Your task to perform on an android device: change notifications settings Image 0: 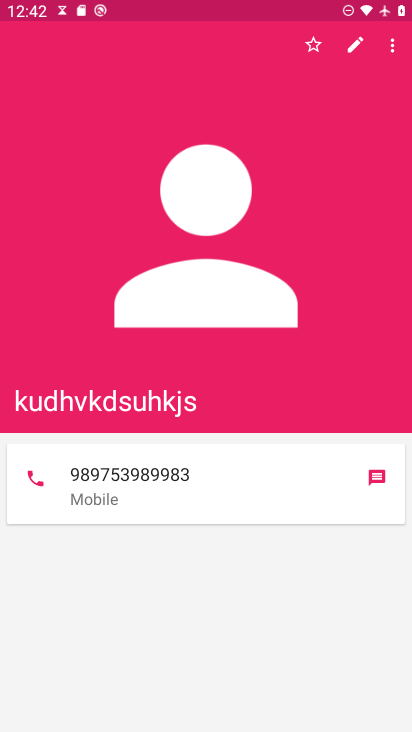
Step 0: press back button
Your task to perform on an android device: change notifications settings Image 1: 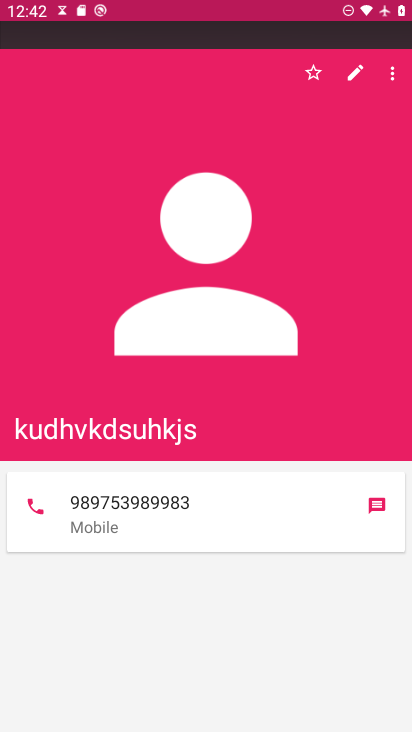
Step 1: press back button
Your task to perform on an android device: change notifications settings Image 2: 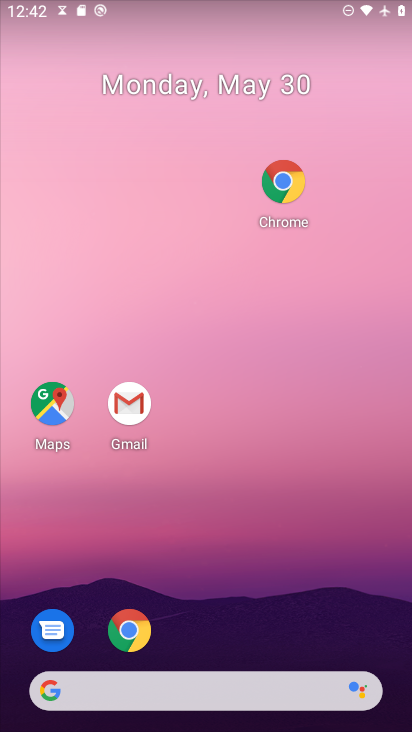
Step 2: click (243, 203)
Your task to perform on an android device: change notifications settings Image 3: 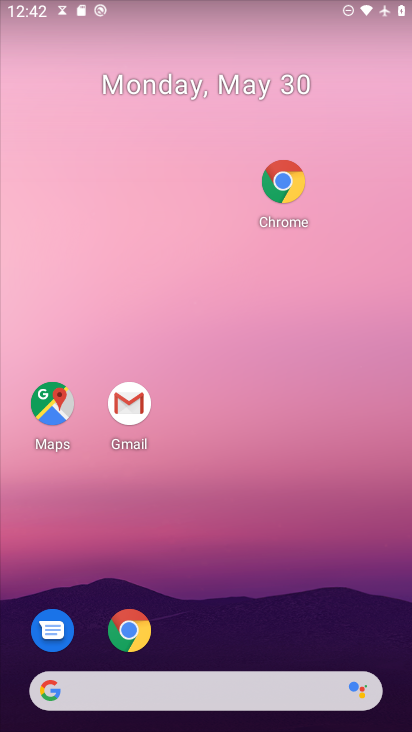
Step 3: drag from (239, 688) to (179, 187)
Your task to perform on an android device: change notifications settings Image 4: 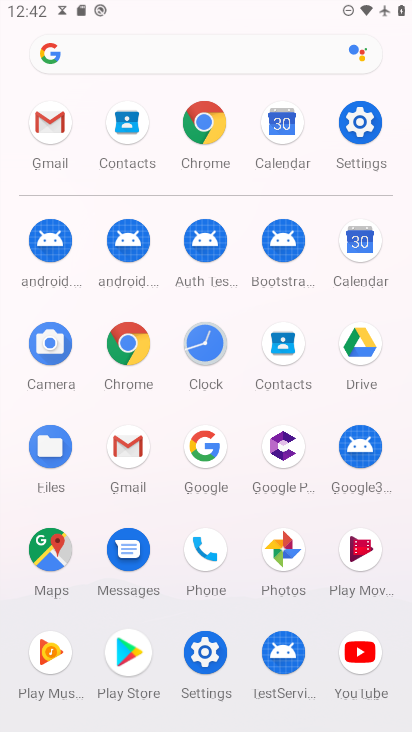
Step 4: drag from (378, 118) to (348, 141)
Your task to perform on an android device: change notifications settings Image 5: 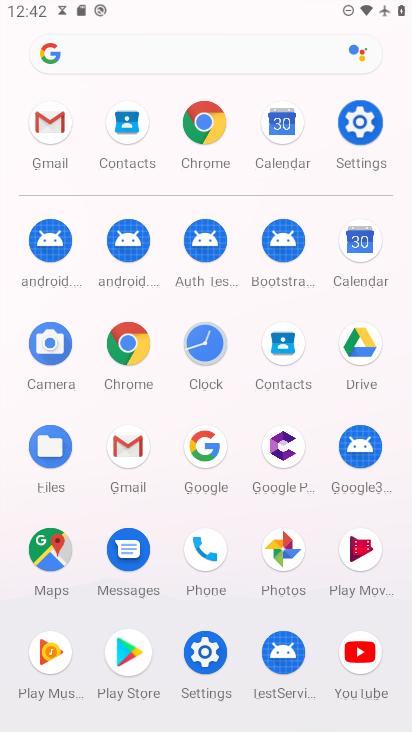
Step 5: click (354, 137)
Your task to perform on an android device: change notifications settings Image 6: 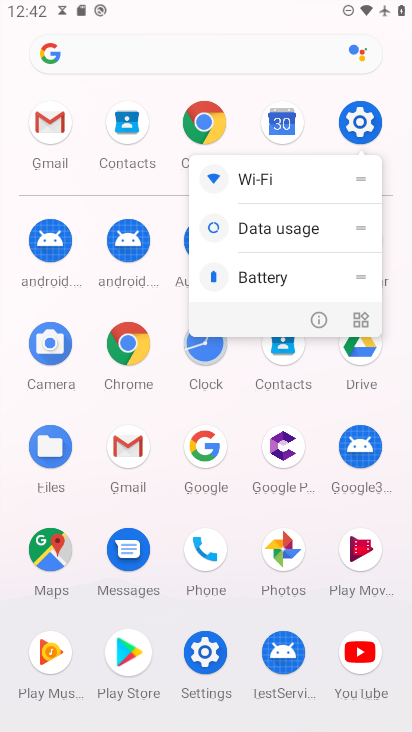
Step 6: click (363, 134)
Your task to perform on an android device: change notifications settings Image 7: 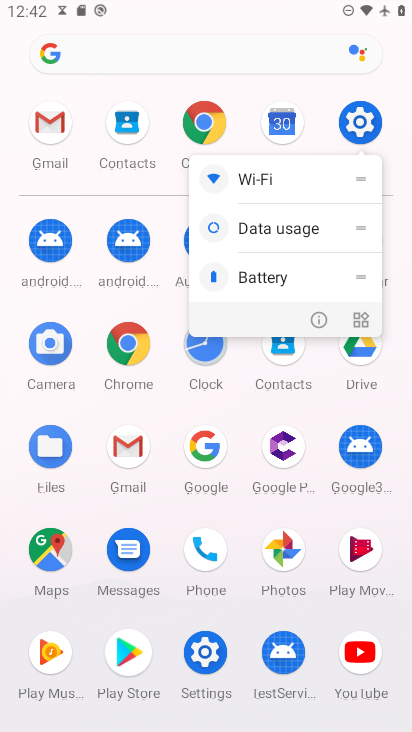
Step 7: click (368, 134)
Your task to perform on an android device: change notifications settings Image 8: 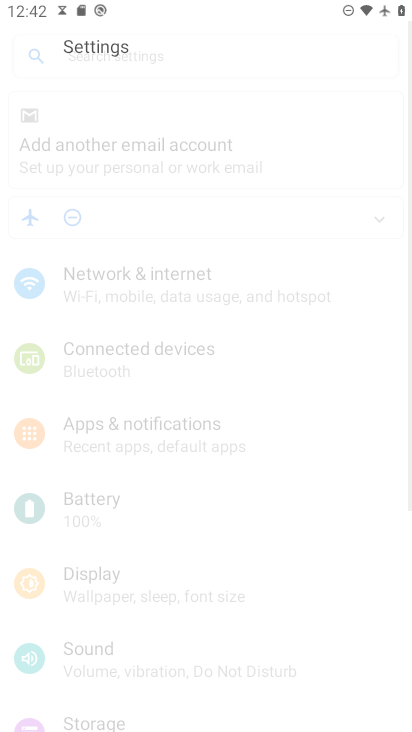
Step 8: click (368, 134)
Your task to perform on an android device: change notifications settings Image 9: 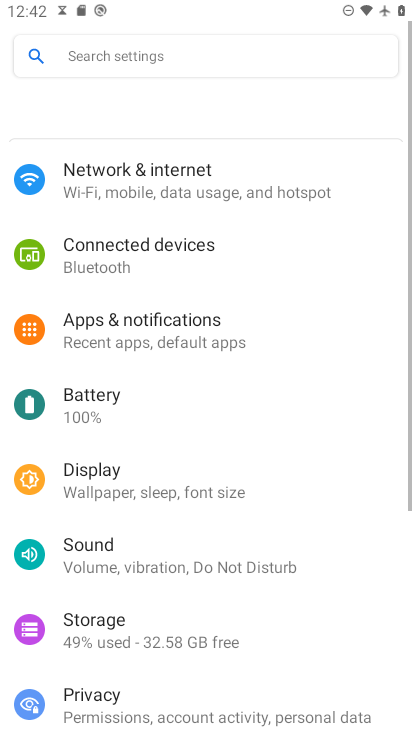
Step 9: click (368, 134)
Your task to perform on an android device: change notifications settings Image 10: 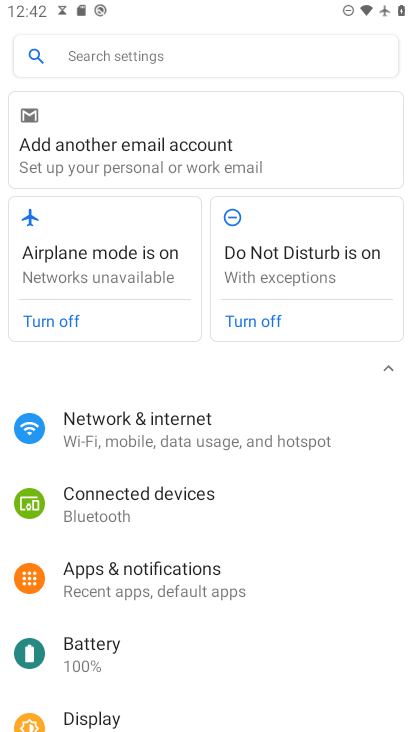
Step 10: click (142, 439)
Your task to perform on an android device: change notifications settings Image 11: 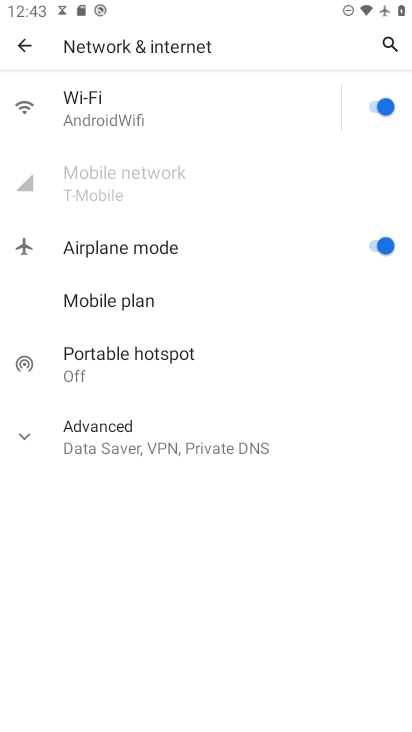
Step 11: click (24, 48)
Your task to perform on an android device: change notifications settings Image 12: 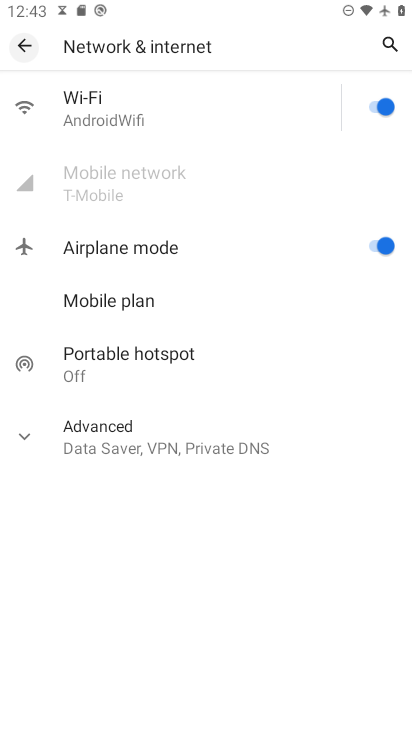
Step 12: click (29, 43)
Your task to perform on an android device: change notifications settings Image 13: 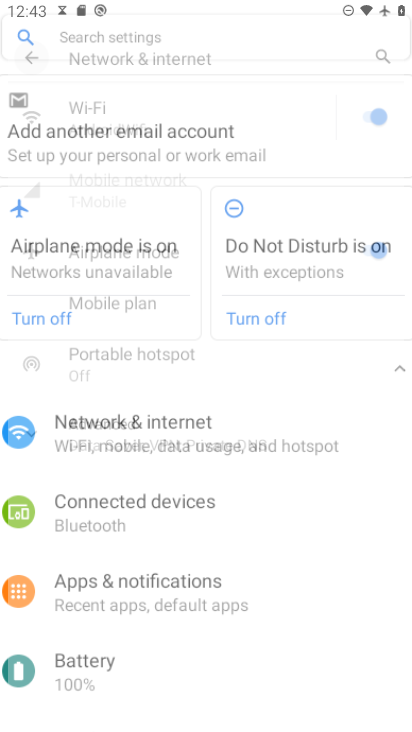
Step 13: click (29, 43)
Your task to perform on an android device: change notifications settings Image 14: 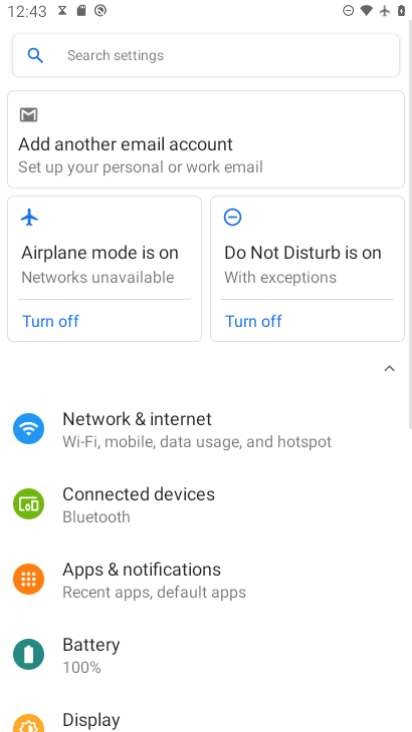
Step 14: click (115, 501)
Your task to perform on an android device: change notifications settings Image 15: 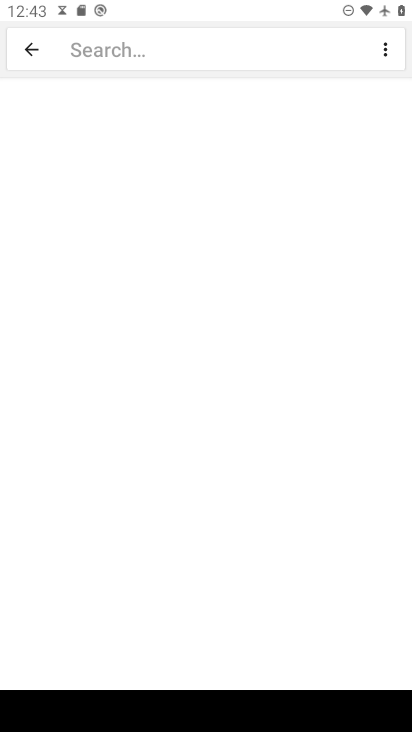
Step 15: click (132, 556)
Your task to perform on an android device: change notifications settings Image 16: 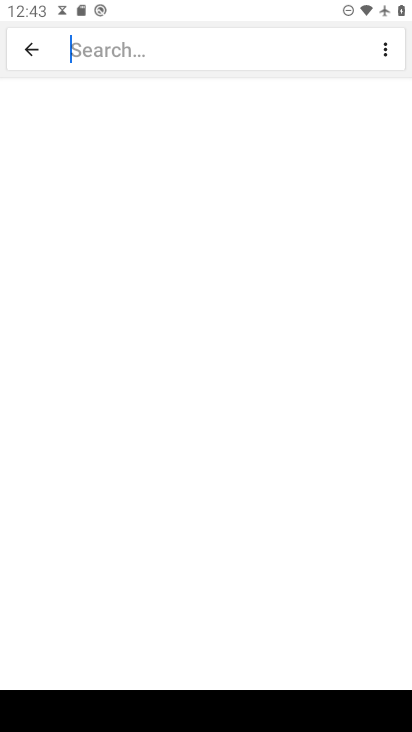
Step 16: click (134, 560)
Your task to perform on an android device: change notifications settings Image 17: 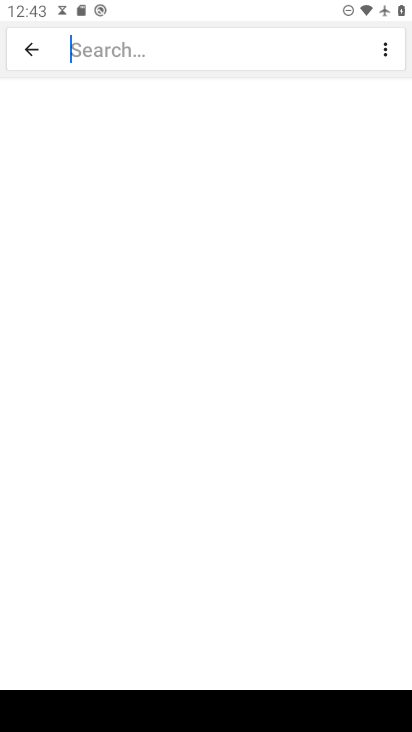
Step 17: click (135, 560)
Your task to perform on an android device: change notifications settings Image 18: 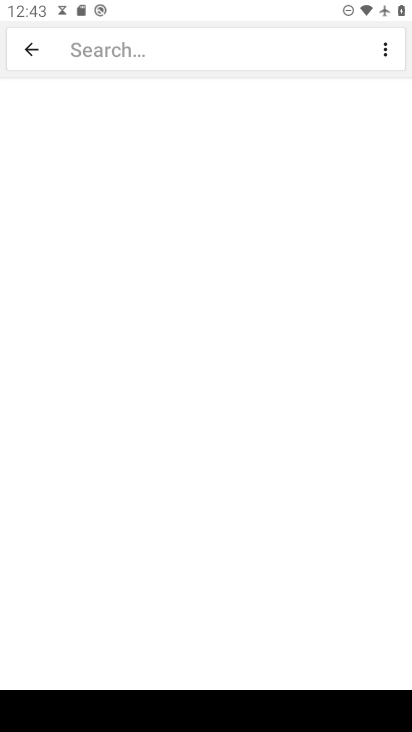
Step 18: click (155, 564)
Your task to perform on an android device: change notifications settings Image 19: 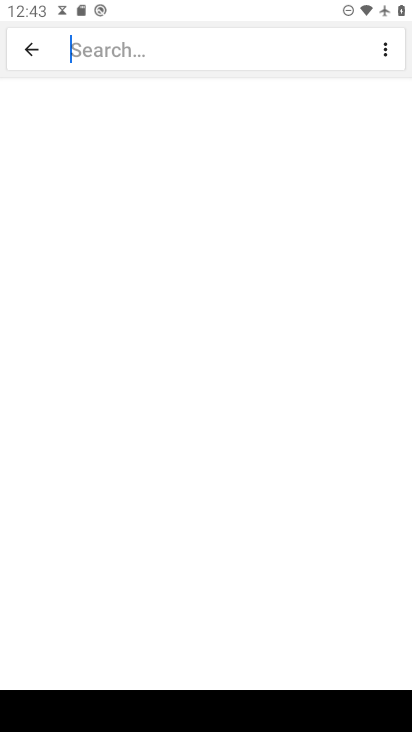
Step 19: click (153, 563)
Your task to perform on an android device: change notifications settings Image 20: 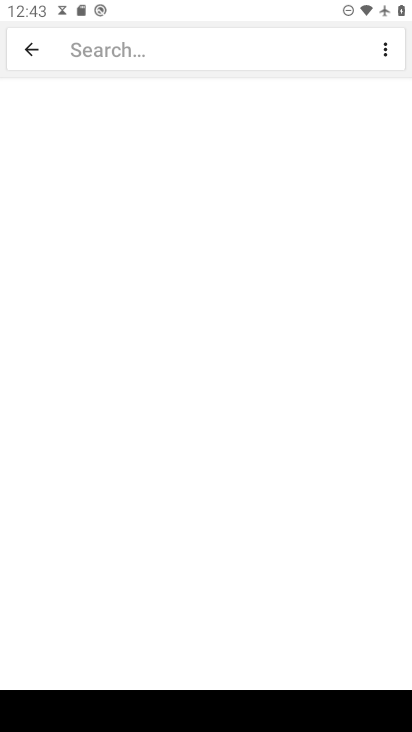
Step 20: click (153, 563)
Your task to perform on an android device: change notifications settings Image 21: 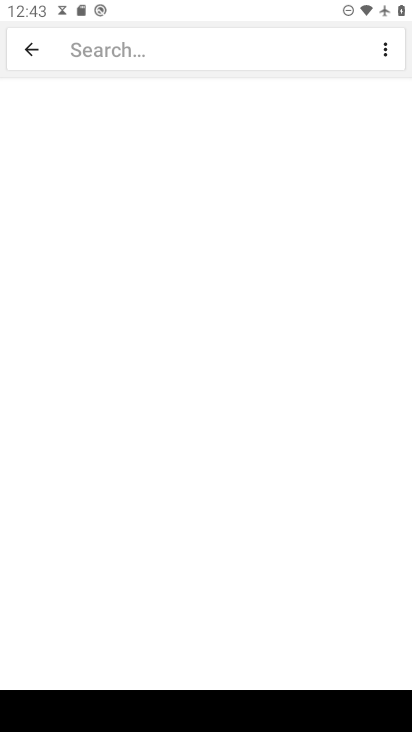
Step 21: click (24, 48)
Your task to perform on an android device: change notifications settings Image 22: 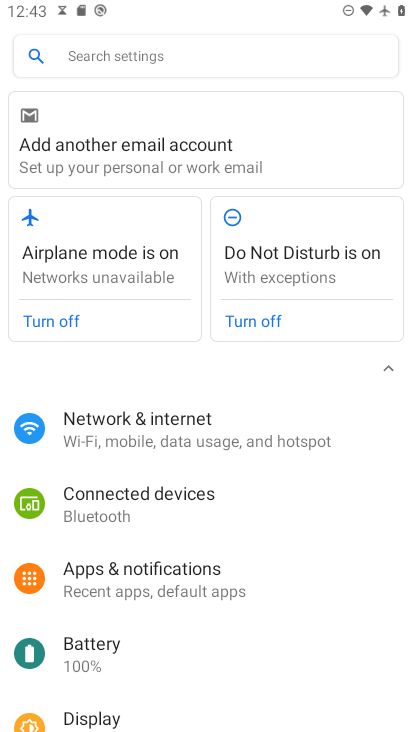
Step 22: click (155, 554)
Your task to perform on an android device: change notifications settings Image 23: 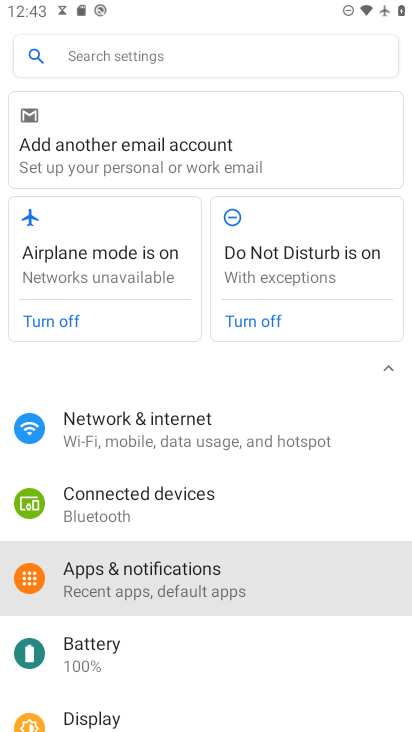
Step 23: click (157, 552)
Your task to perform on an android device: change notifications settings Image 24: 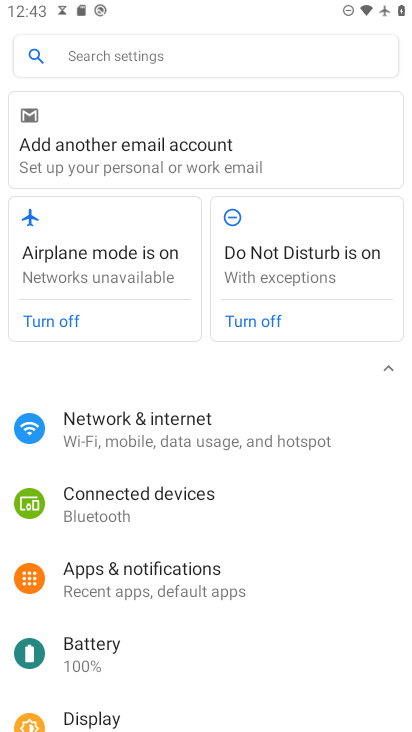
Step 24: click (157, 552)
Your task to perform on an android device: change notifications settings Image 25: 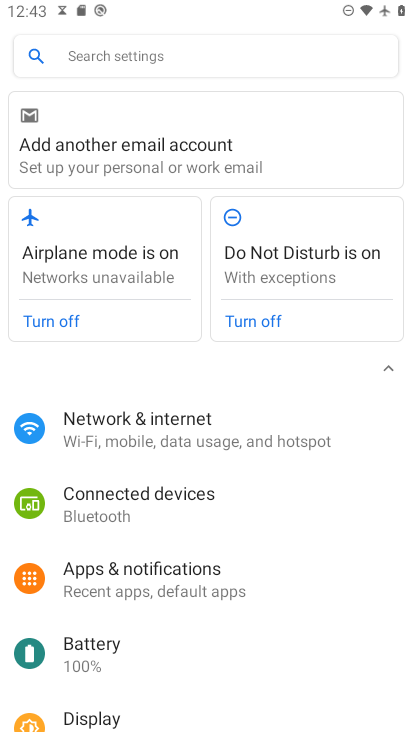
Step 25: click (170, 561)
Your task to perform on an android device: change notifications settings Image 26: 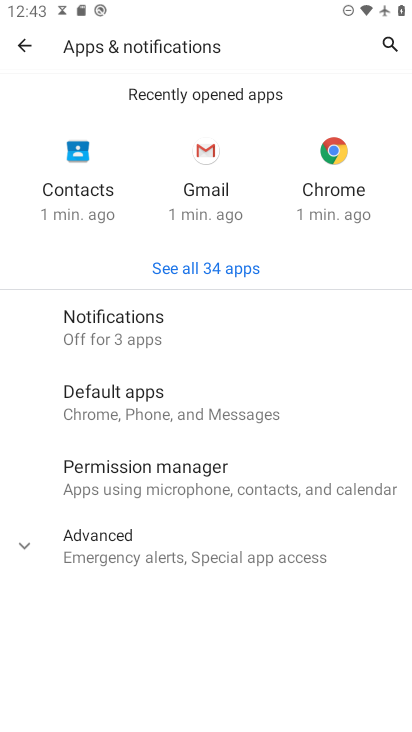
Step 26: click (171, 561)
Your task to perform on an android device: change notifications settings Image 27: 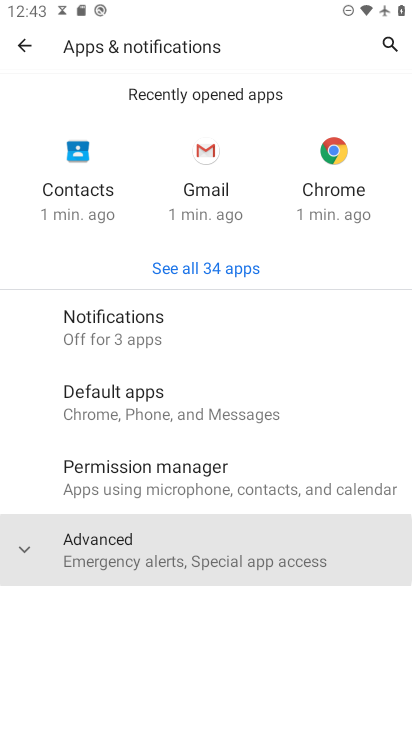
Step 27: click (171, 561)
Your task to perform on an android device: change notifications settings Image 28: 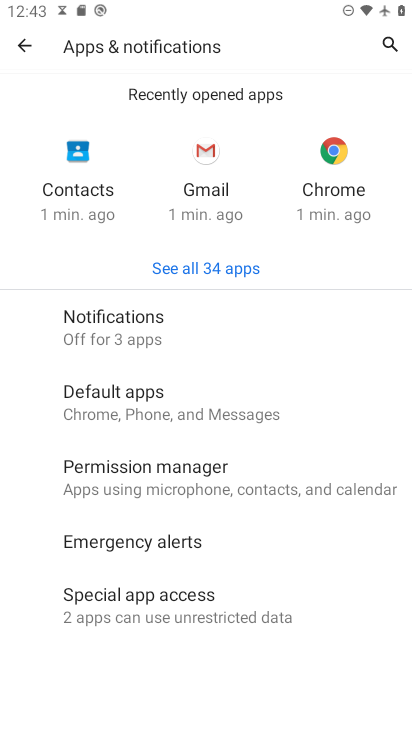
Step 28: click (173, 562)
Your task to perform on an android device: change notifications settings Image 29: 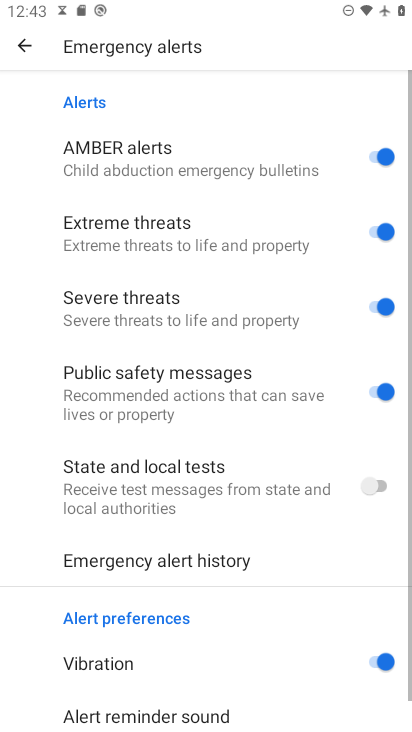
Step 29: click (126, 324)
Your task to perform on an android device: change notifications settings Image 30: 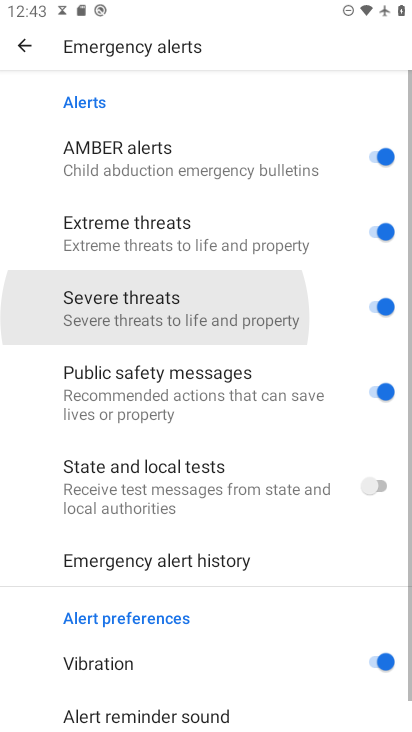
Step 30: click (126, 324)
Your task to perform on an android device: change notifications settings Image 31: 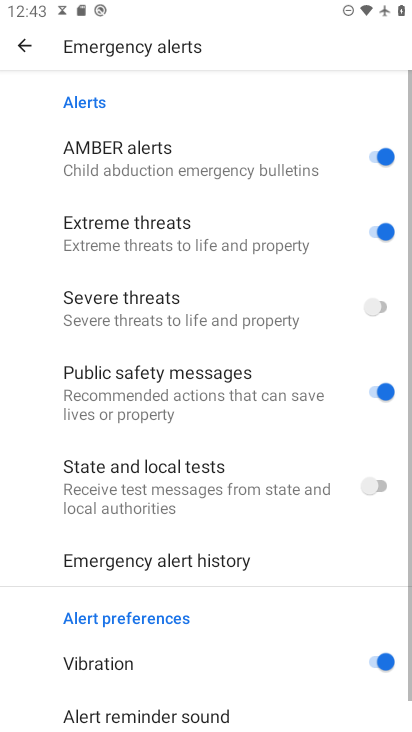
Step 31: click (126, 324)
Your task to perform on an android device: change notifications settings Image 32: 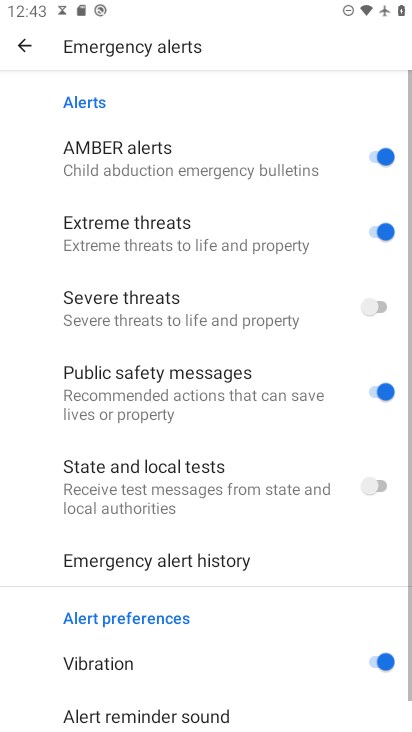
Step 32: click (28, 54)
Your task to perform on an android device: change notifications settings Image 33: 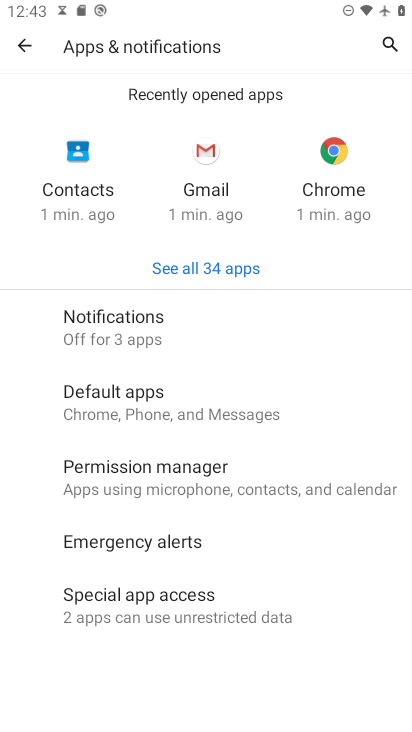
Step 33: click (114, 320)
Your task to perform on an android device: change notifications settings Image 34: 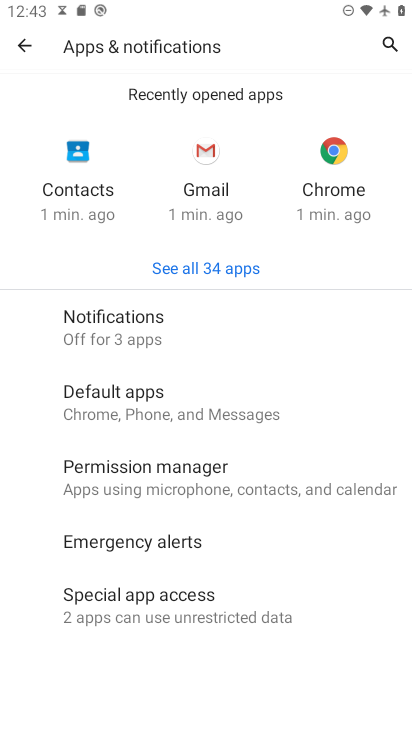
Step 34: click (114, 334)
Your task to perform on an android device: change notifications settings Image 35: 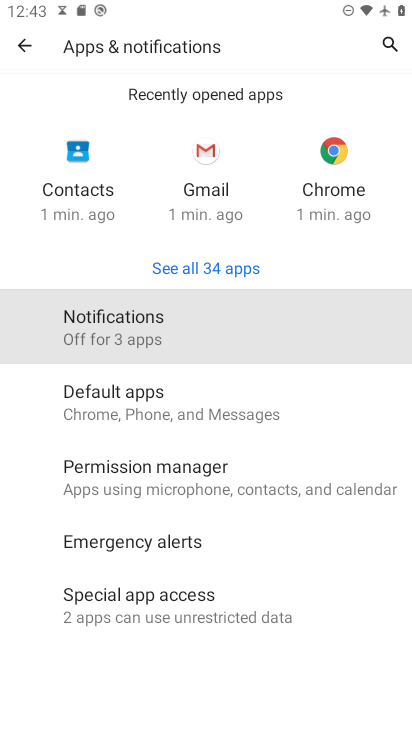
Step 35: click (117, 337)
Your task to perform on an android device: change notifications settings Image 36: 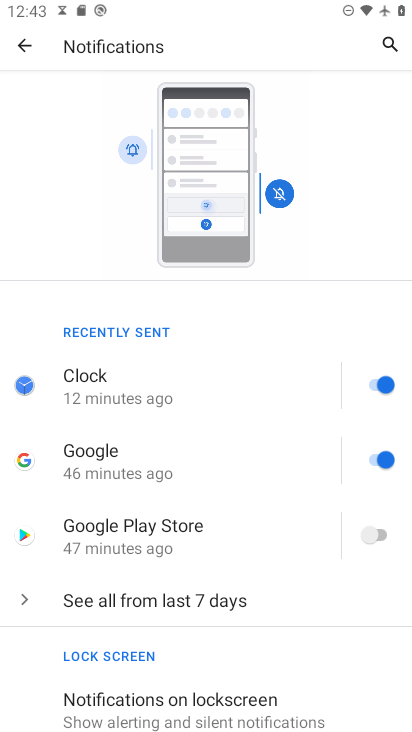
Step 36: click (387, 381)
Your task to perform on an android device: change notifications settings Image 37: 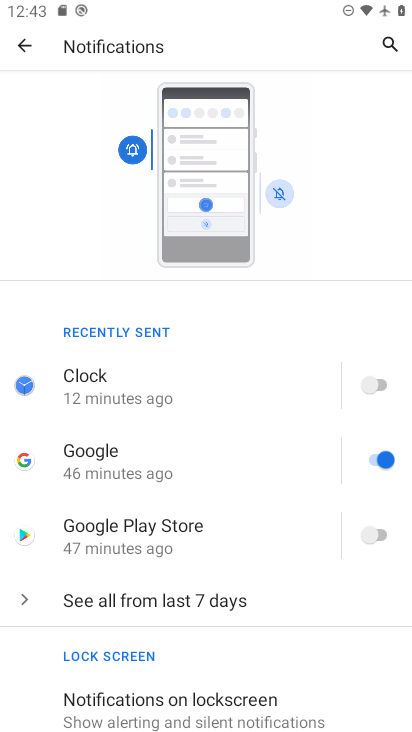
Step 37: click (379, 458)
Your task to perform on an android device: change notifications settings Image 38: 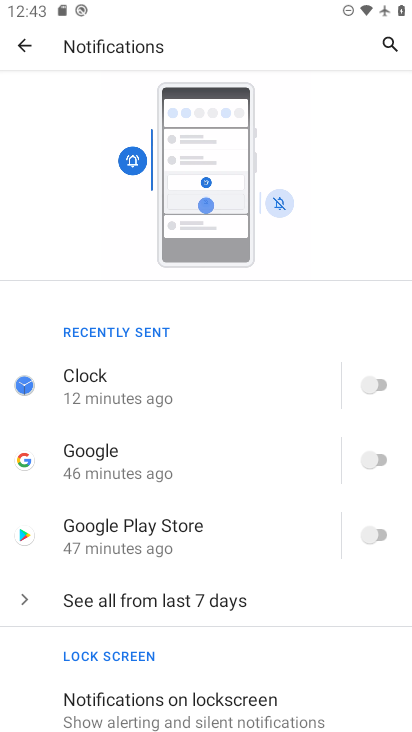
Step 38: click (371, 525)
Your task to perform on an android device: change notifications settings Image 39: 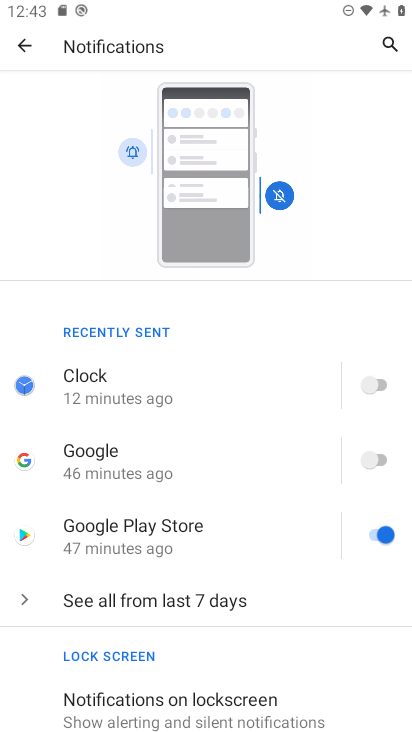
Step 39: task complete